Your task to perform on an android device: Open the calendar app, open the side menu, and click the "Day" option Image 0: 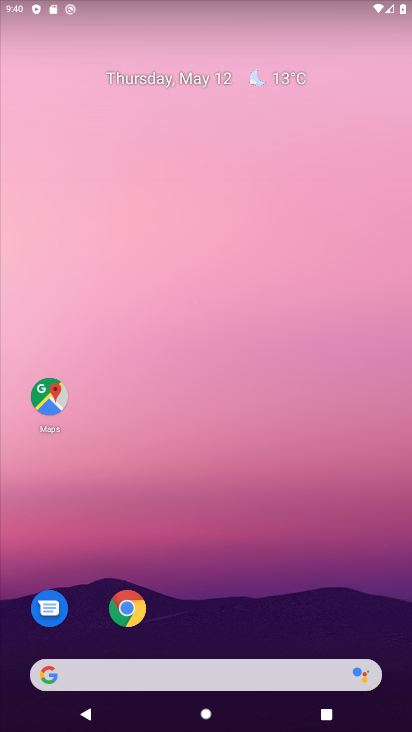
Step 0: drag from (208, 619) to (238, 105)
Your task to perform on an android device: Open the calendar app, open the side menu, and click the "Day" option Image 1: 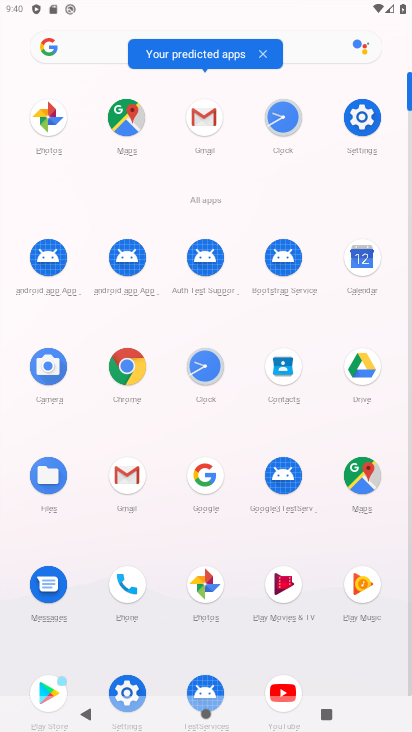
Step 1: click (366, 258)
Your task to perform on an android device: Open the calendar app, open the side menu, and click the "Day" option Image 2: 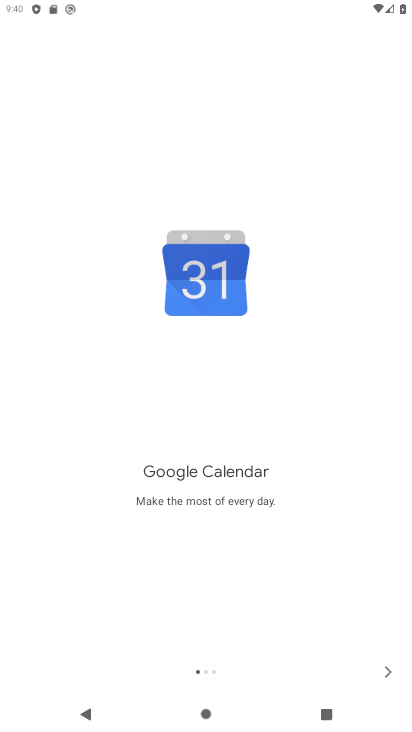
Step 2: click (386, 670)
Your task to perform on an android device: Open the calendar app, open the side menu, and click the "Day" option Image 3: 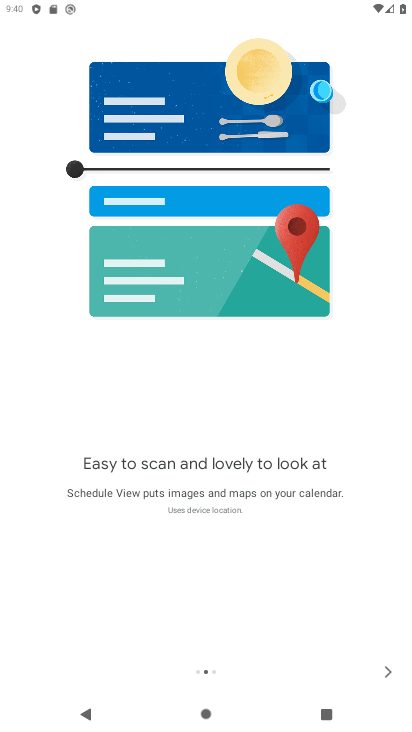
Step 3: click (386, 670)
Your task to perform on an android device: Open the calendar app, open the side menu, and click the "Day" option Image 4: 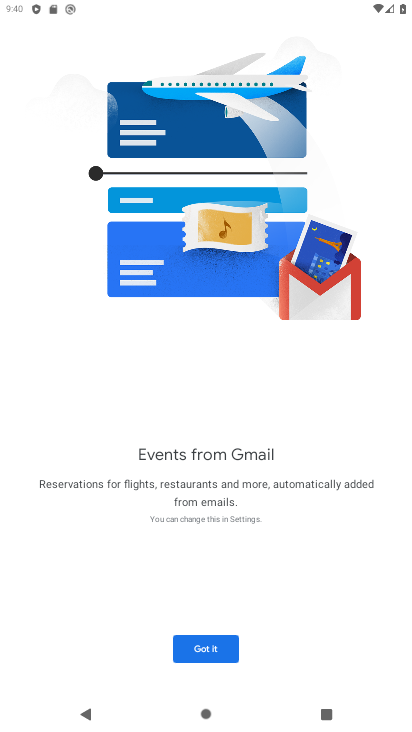
Step 4: click (186, 650)
Your task to perform on an android device: Open the calendar app, open the side menu, and click the "Day" option Image 5: 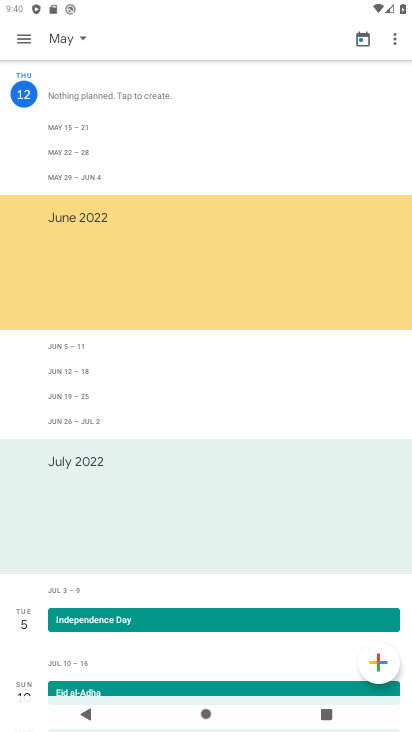
Step 5: click (26, 39)
Your task to perform on an android device: Open the calendar app, open the side menu, and click the "Day" option Image 6: 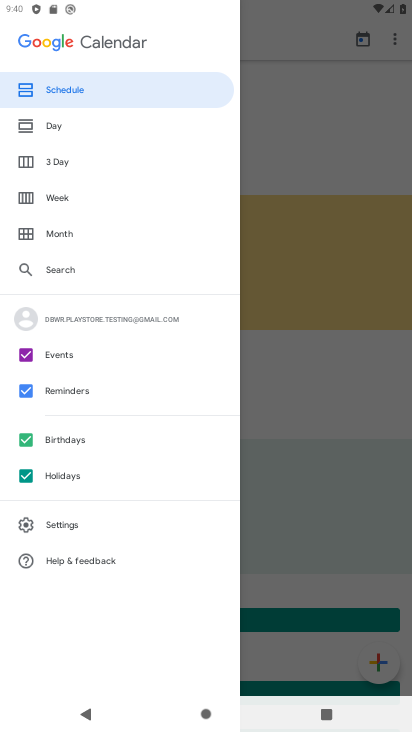
Step 6: click (69, 126)
Your task to perform on an android device: Open the calendar app, open the side menu, and click the "Day" option Image 7: 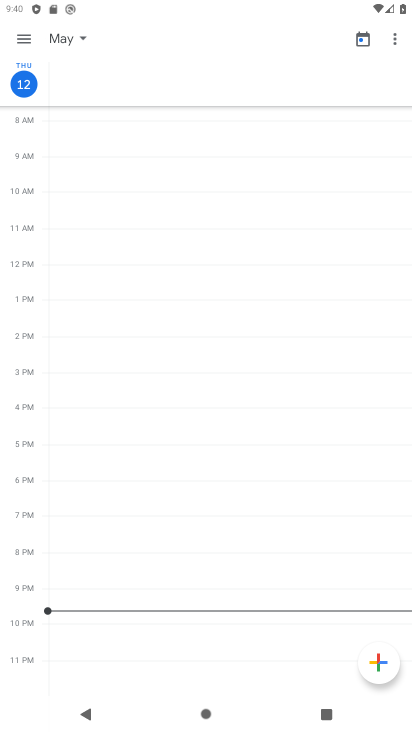
Step 7: task complete